Your task to perform on an android device: change the clock display to digital Image 0: 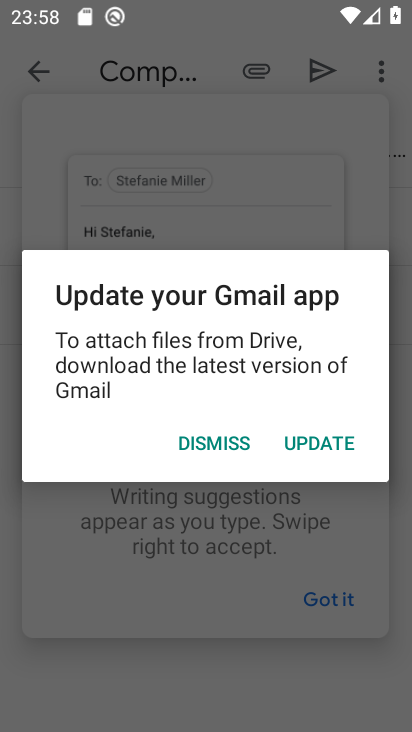
Step 0: click (217, 434)
Your task to perform on an android device: change the clock display to digital Image 1: 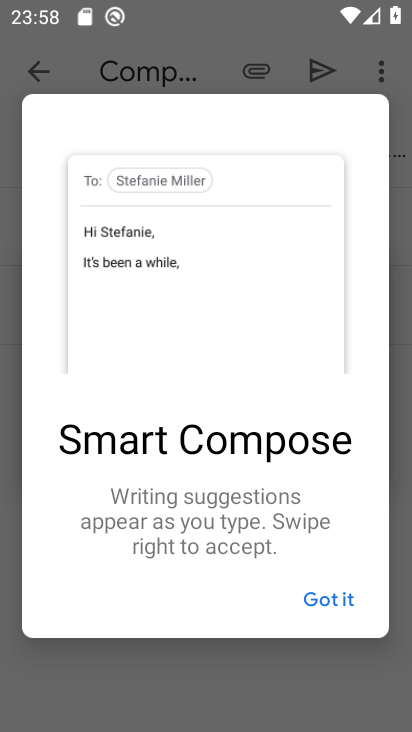
Step 1: click (327, 608)
Your task to perform on an android device: change the clock display to digital Image 2: 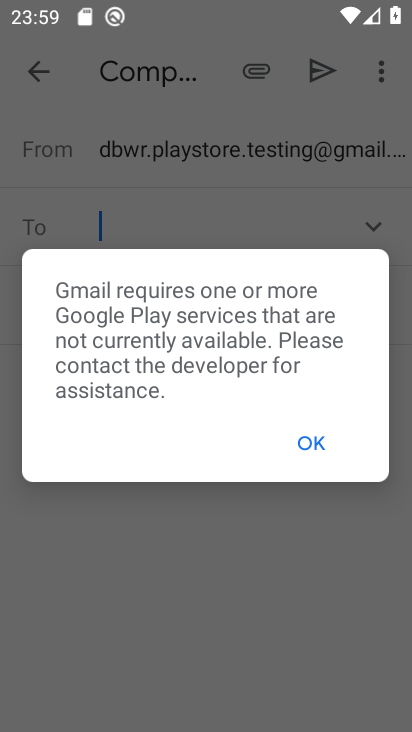
Step 2: click (314, 441)
Your task to perform on an android device: change the clock display to digital Image 3: 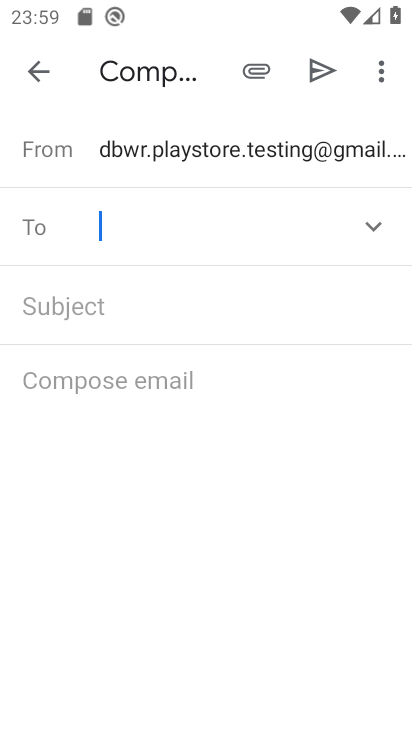
Step 3: click (39, 71)
Your task to perform on an android device: change the clock display to digital Image 4: 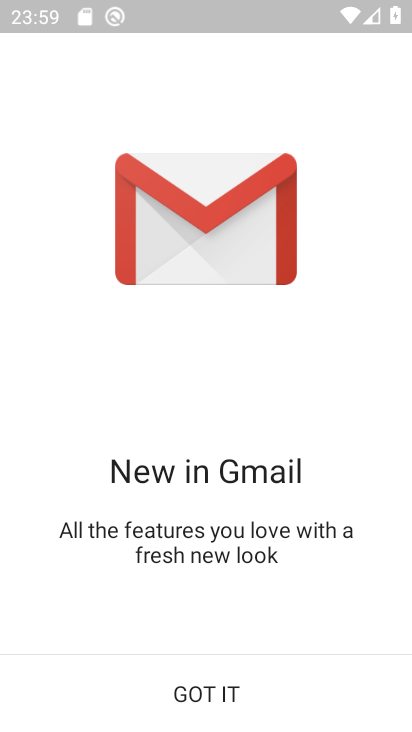
Step 4: click (214, 683)
Your task to perform on an android device: change the clock display to digital Image 5: 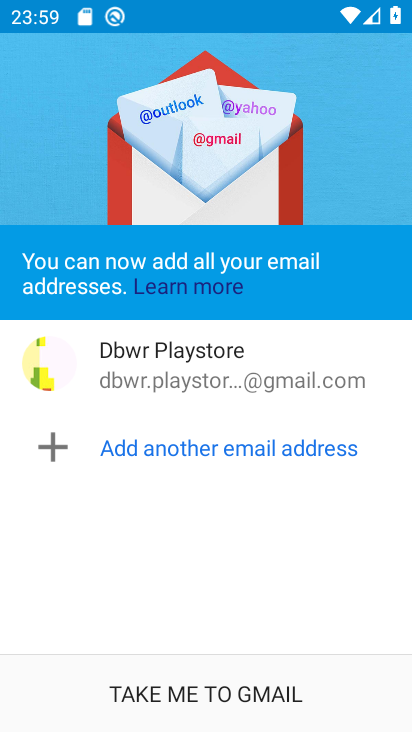
Step 5: click (184, 690)
Your task to perform on an android device: change the clock display to digital Image 6: 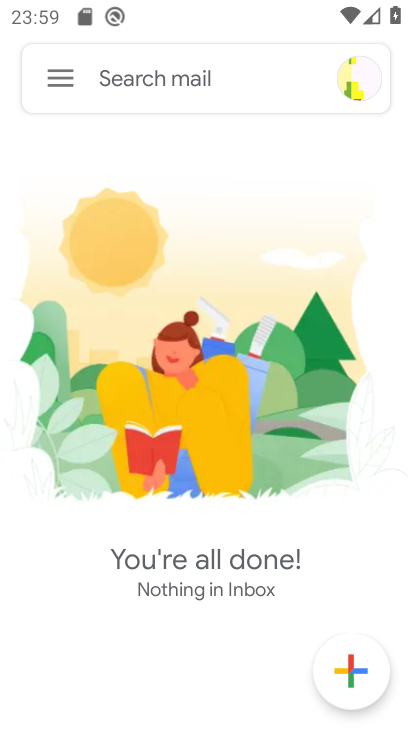
Step 6: press home button
Your task to perform on an android device: change the clock display to digital Image 7: 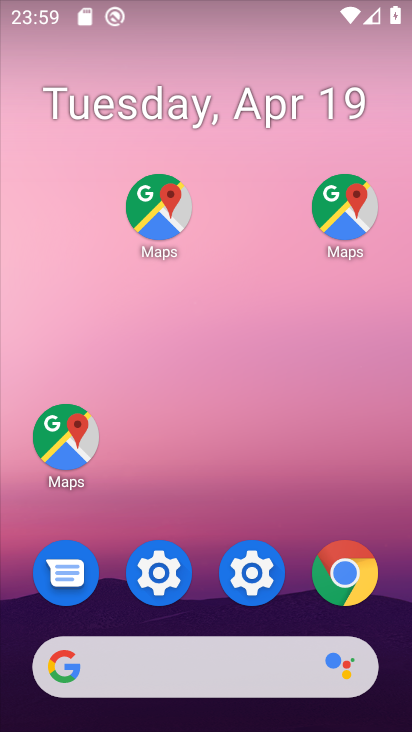
Step 7: drag from (285, 521) to (134, 10)
Your task to perform on an android device: change the clock display to digital Image 8: 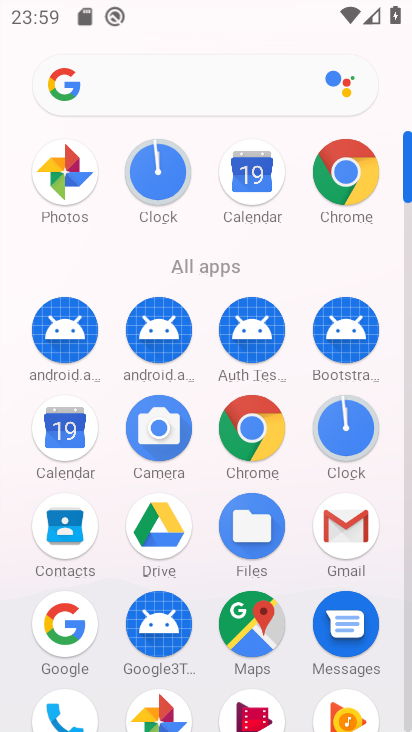
Step 8: click (151, 186)
Your task to perform on an android device: change the clock display to digital Image 9: 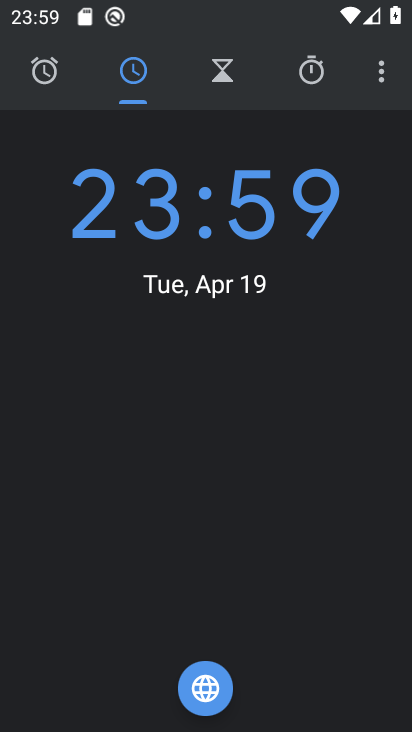
Step 9: click (376, 31)
Your task to perform on an android device: change the clock display to digital Image 10: 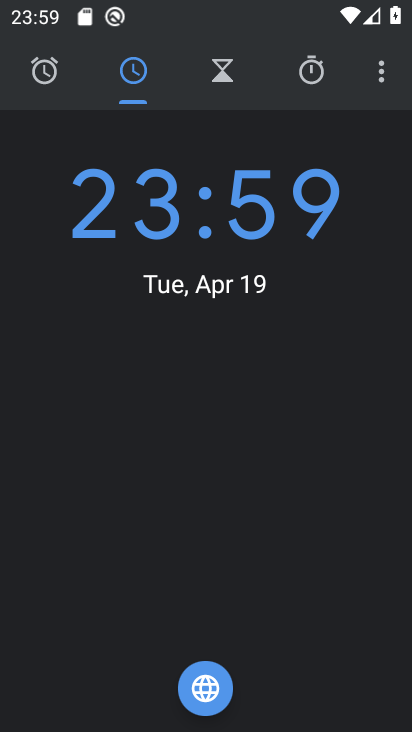
Step 10: click (393, 64)
Your task to perform on an android device: change the clock display to digital Image 11: 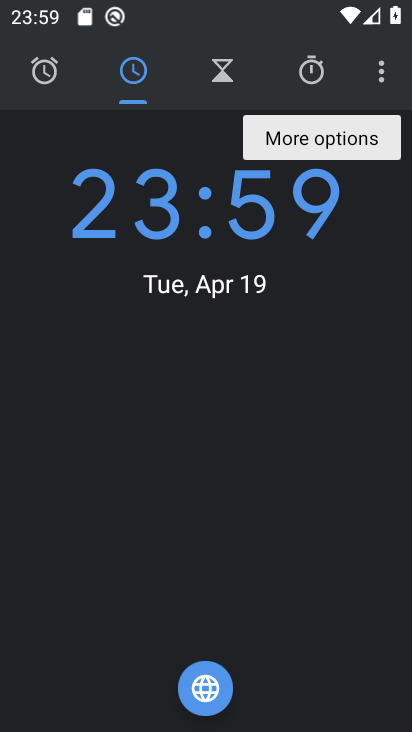
Step 11: click (380, 72)
Your task to perform on an android device: change the clock display to digital Image 12: 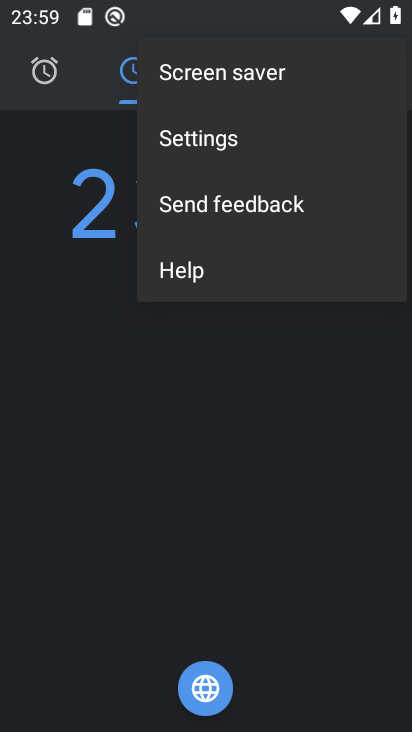
Step 12: click (188, 128)
Your task to perform on an android device: change the clock display to digital Image 13: 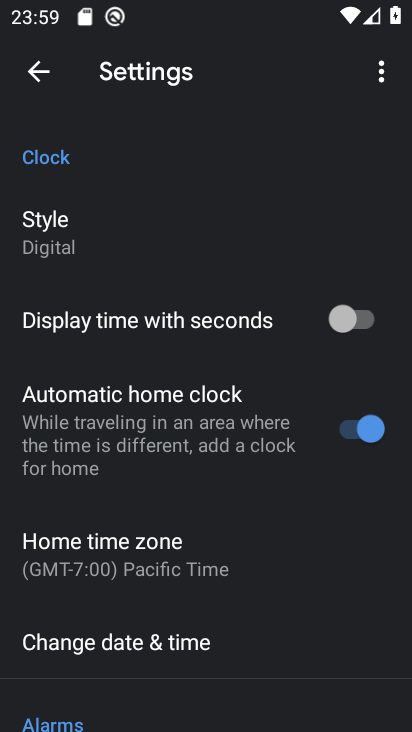
Step 13: click (97, 213)
Your task to perform on an android device: change the clock display to digital Image 14: 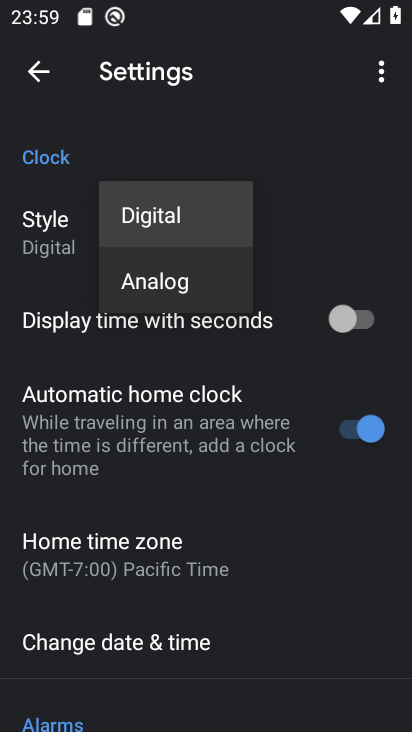
Step 14: click (166, 212)
Your task to perform on an android device: change the clock display to digital Image 15: 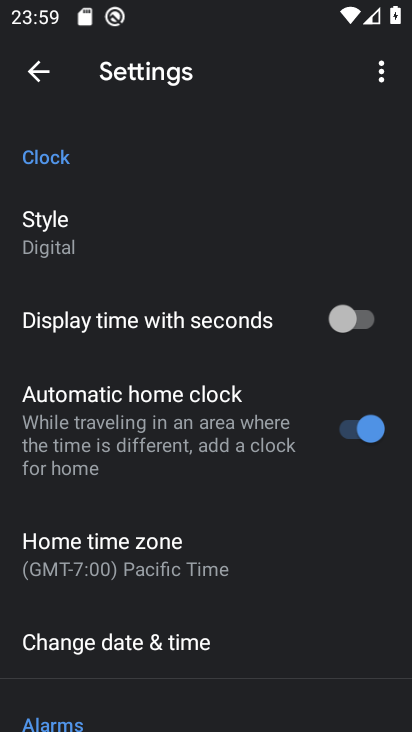
Step 15: task complete